Your task to perform on an android device: What's on my calendar tomorrow? Image 0: 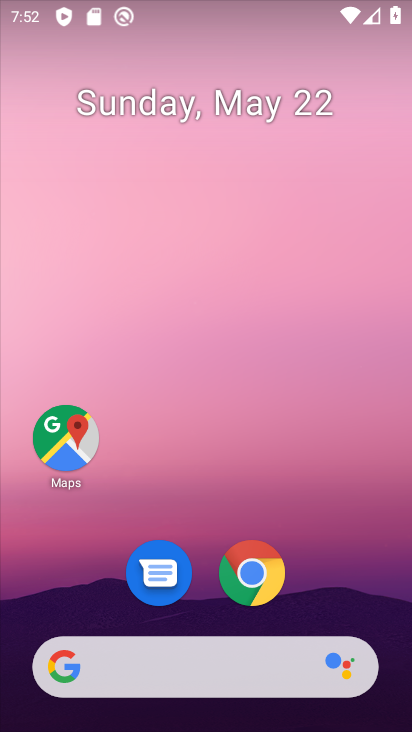
Step 0: drag from (205, 600) to (377, 4)
Your task to perform on an android device: What's on my calendar tomorrow? Image 1: 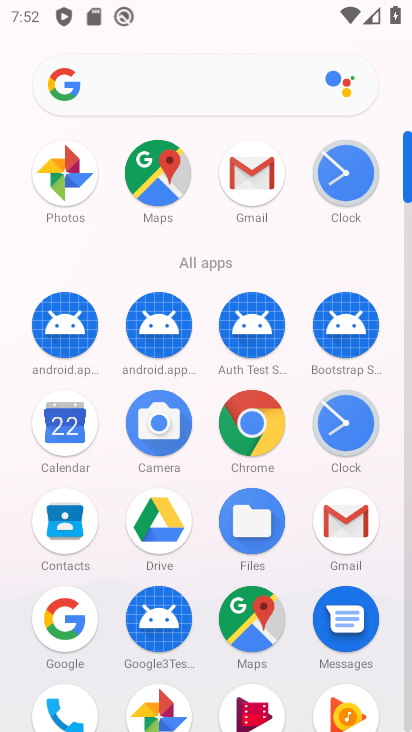
Step 1: click (77, 419)
Your task to perform on an android device: What's on my calendar tomorrow? Image 2: 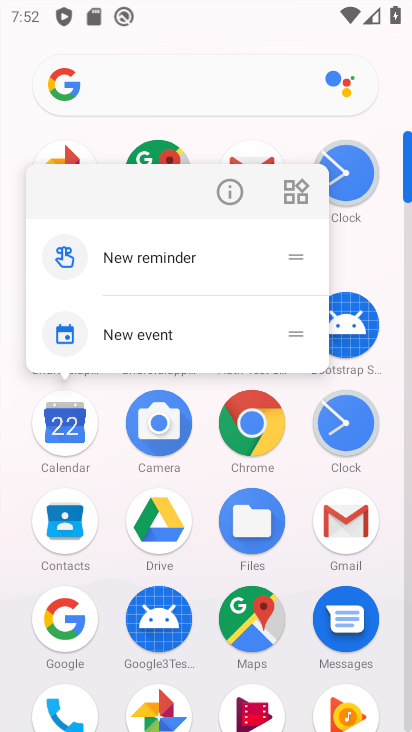
Step 2: click (231, 184)
Your task to perform on an android device: What's on my calendar tomorrow? Image 3: 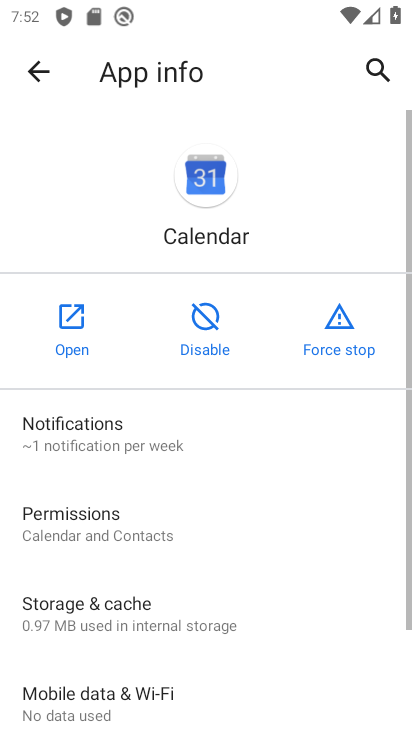
Step 3: click (45, 308)
Your task to perform on an android device: What's on my calendar tomorrow? Image 4: 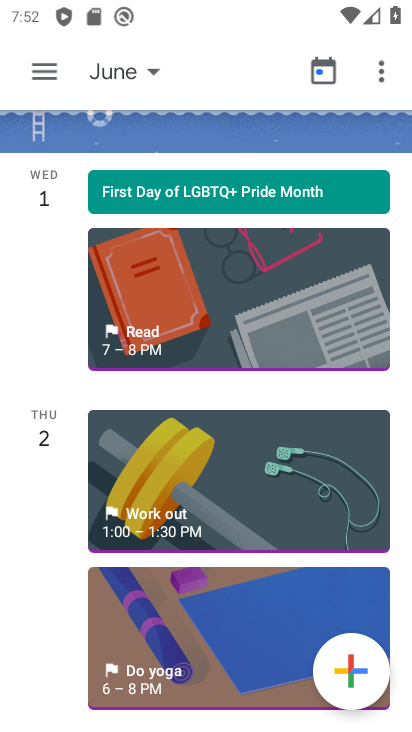
Step 4: click (150, 68)
Your task to perform on an android device: What's on my calendar tomorrow? Image 5: 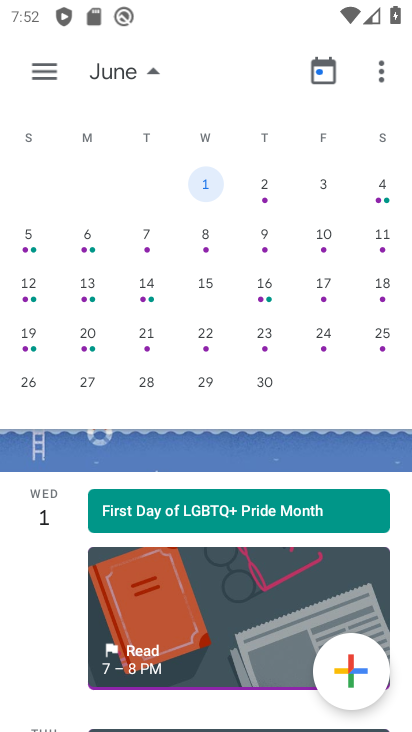
Step 5: click (114, 73)
Your task to perform on an android device: What's on my calendar tomorrow? Image 6: 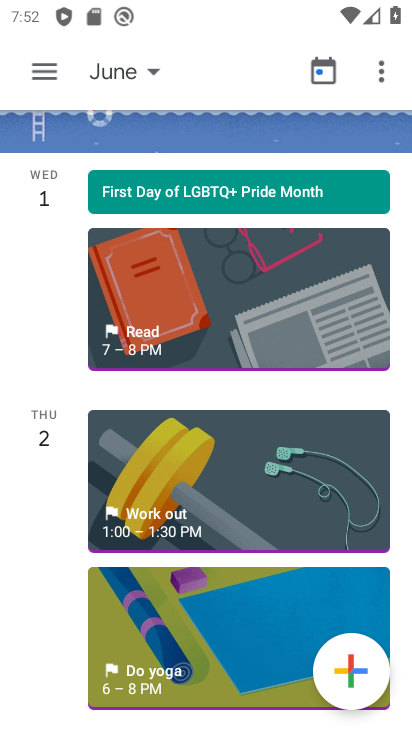
Step 6: click (159, 61)
Your task to perform on an android device: What's on my calendar tomorrow? Image 7: 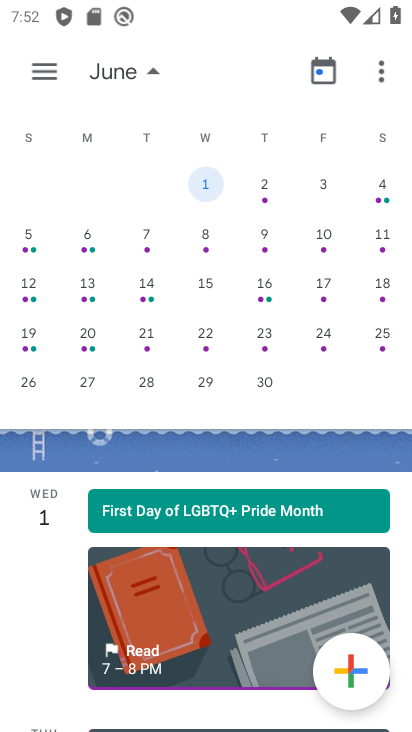
Step 7: drag from (36, 343) to (411, 222)
Your task to perform on an android device: What's on my calendar tomorrow? Image 8: 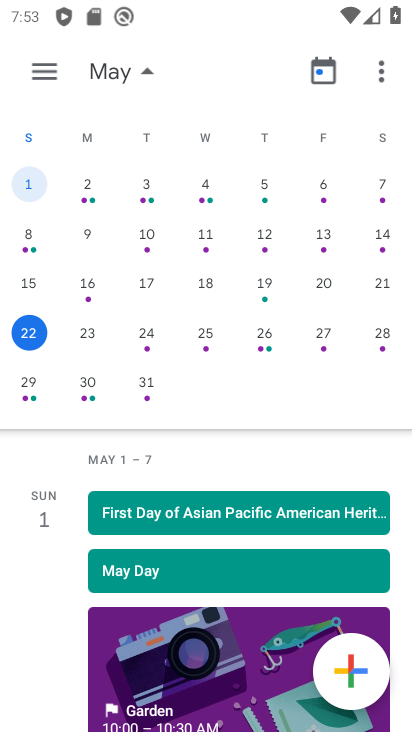
Step 8: click (91, 336)
Your task to perform on an android device: What's on my calendar tomorrow? Image 9: 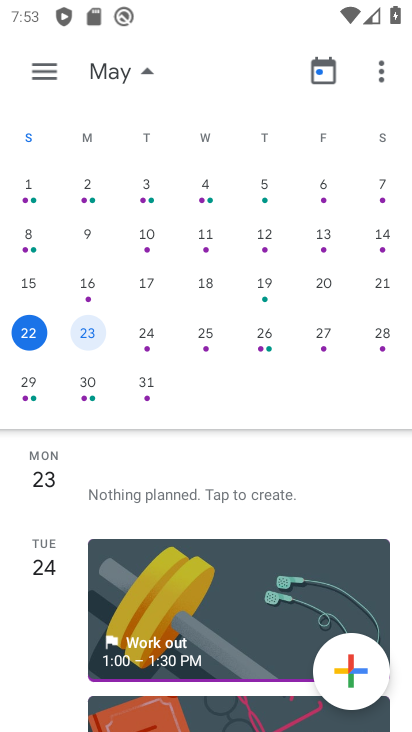
Step 9: task complete